Your task to perform on an android device: Open the Play Movies app and select the watchlist tab. Image 0: 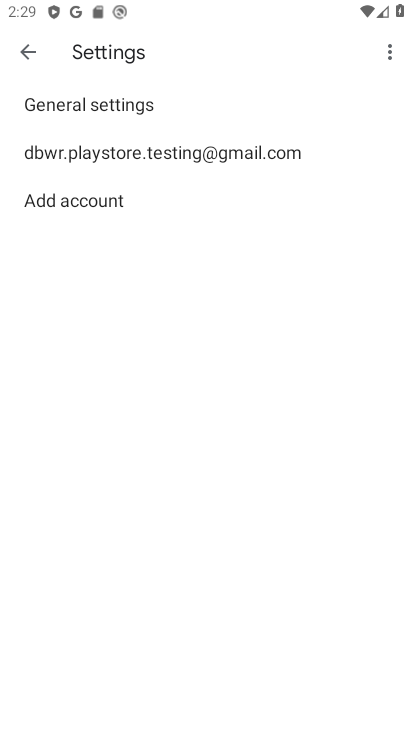
Step 0: press home button
Your task to perform on an android device: Open the Play Movies app and select the watchlist tab. Image 1: 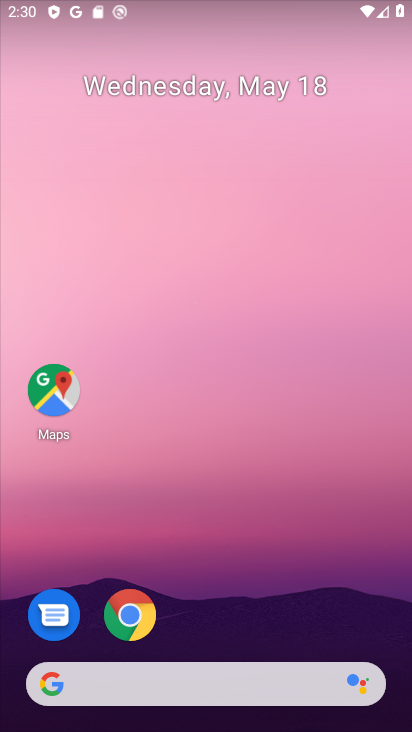
Step 1: drag from (213, 607) to (320, 298)
Your task to perform on an android device: Open the Play Movies app and select the watchlist tab. Image 2: 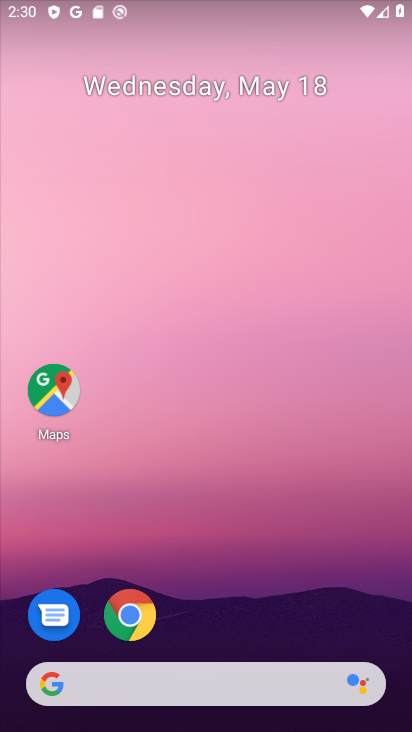
Step 2: drag from (256, 621) to (304, 166)
Your task to perform on an android device: Open the Play Movies app and select the watchlist tab. Image 3: 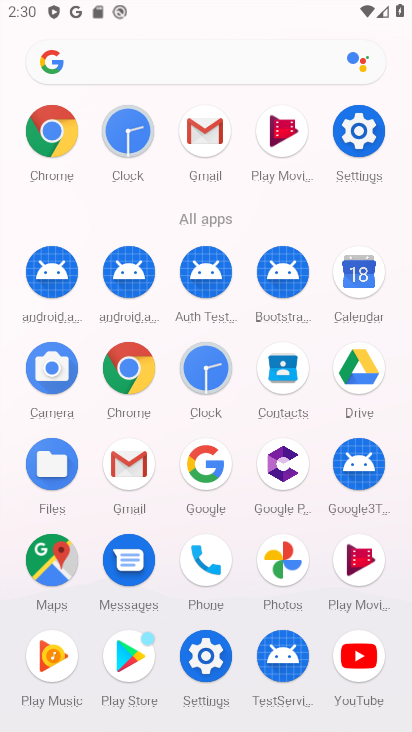
Step 3: click (352, 561)
Your task to perform on an android device: Open the Play Movies app and select the watchlist tab. Image 4: 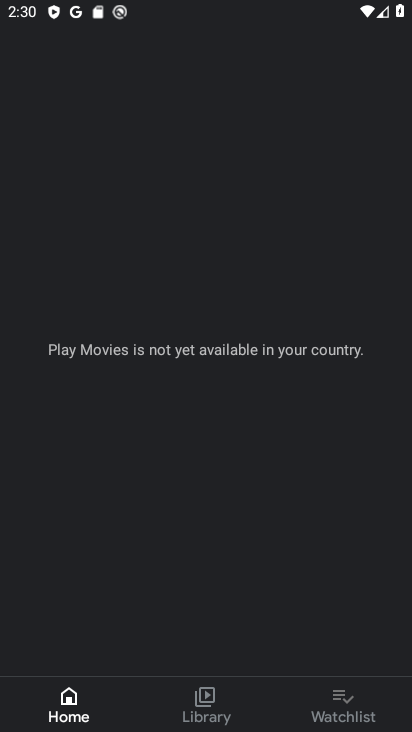
Step 4: click (335, 703)
Your task to perform on an android device: Open the Play Movies app and select the watchlist tab. Image 5: 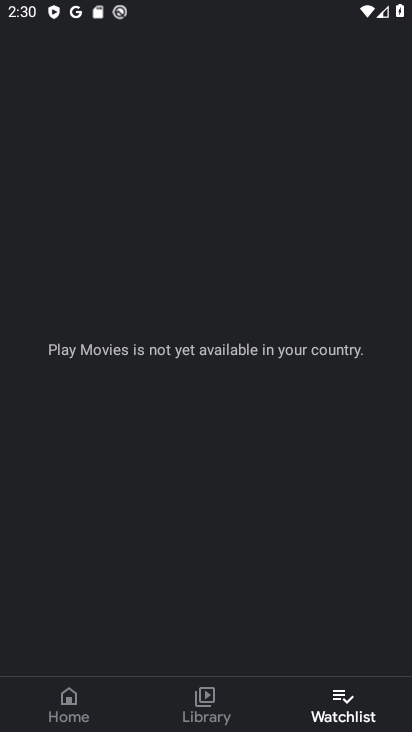
Step 5: task complete